Your task to perform on an android device: turn on data saver in the chrome app Image 0: 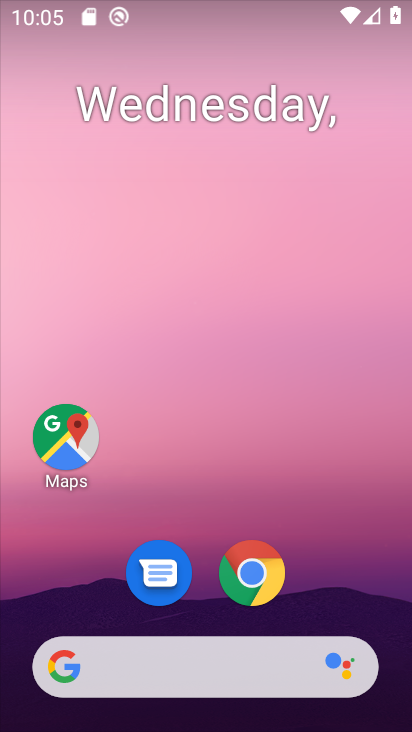
Step 0: drag from (191, 650) to (214, 1)
Your task to perform on an android device: turn on data saver in the chrome app Image 1: 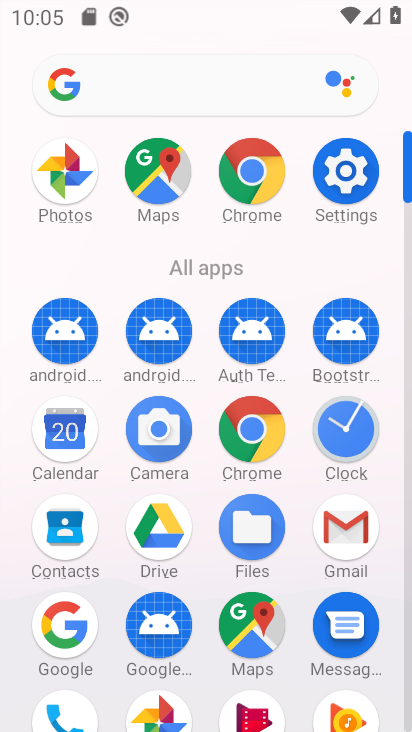
Step 1: click (280, 436)
Your task to perform on an android device: turn on data saver in the chrome app Image 2: 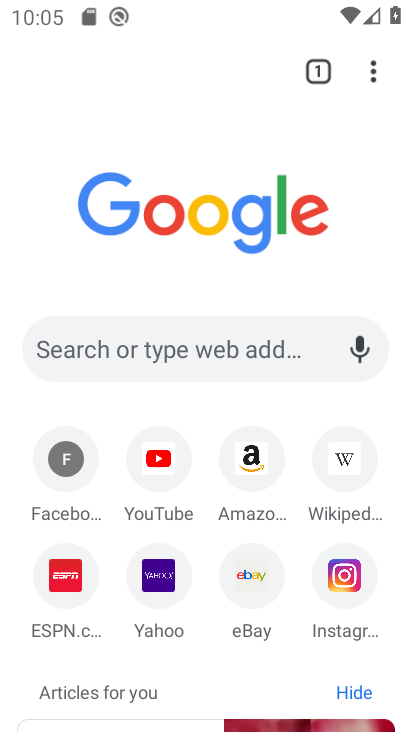
Step 2: click (368, 65)
Your task to perform on an android device: turn on data saver in the chrome app Image 3: 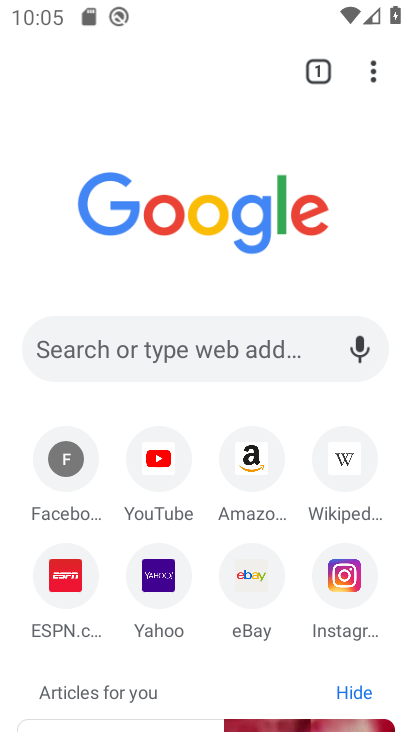
Step 3: click (368, 65)
Your task to perform on an android device: turn on data saver in the chrome app Image 4: 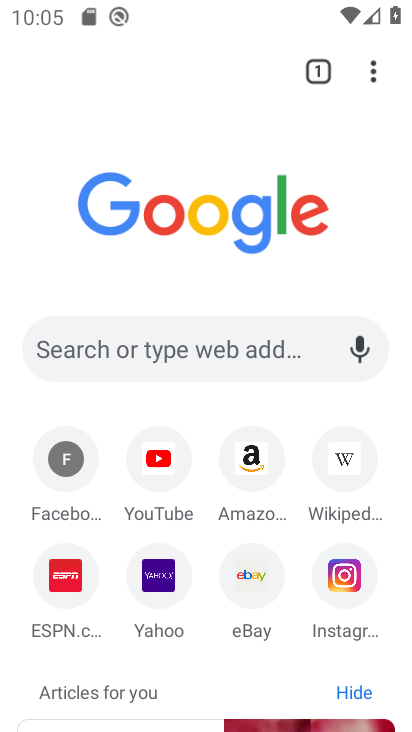
Step 4: click (368, 65)
Your task to perform on an android device: turn on data saver in the chrome app Image 5: 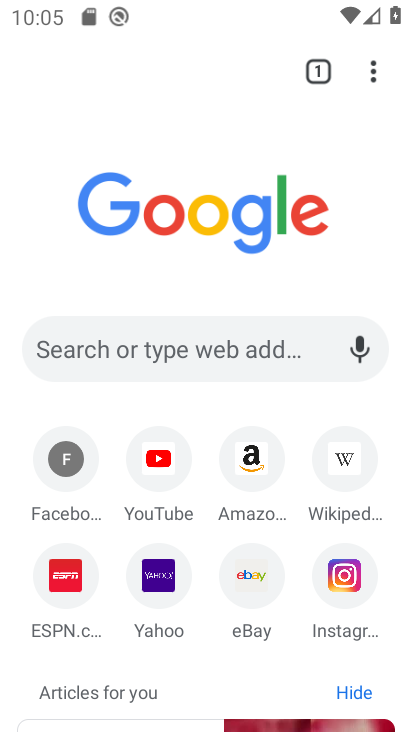
Step 5: click (367, 63)
Your task to perform on an android device: turn on data saver in the chrome app Image 6: 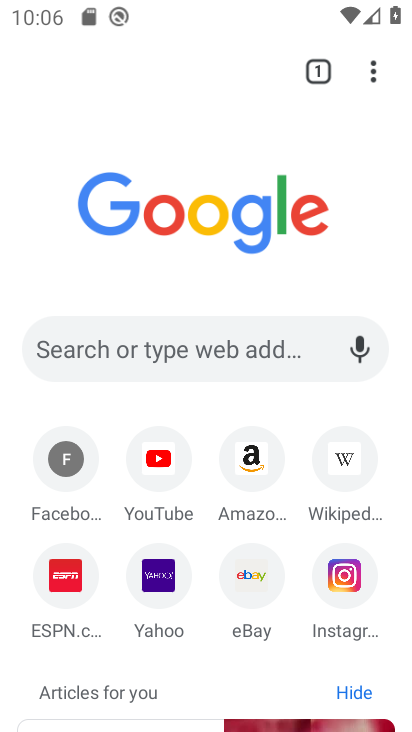
Step 6: drag from (360, 60) to (213, 596)
Your task to perform on an android device: turn on data saver in the chrome app Image 7: 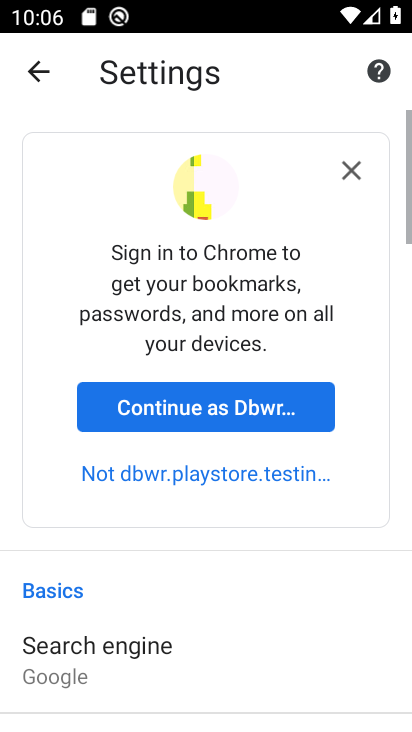
Step 7: drag from (178, 582) to (240, 44)
Your task to perform on an android device: turn on data saver in the chrome app Image 8: 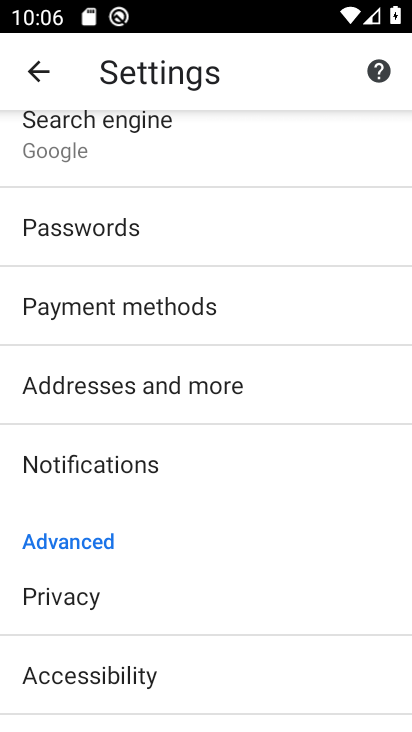
Step 8: drag from (181, 577) to (227, 178)
Your task to perform on an android device: turn on data saver in the chrome app Image 9: 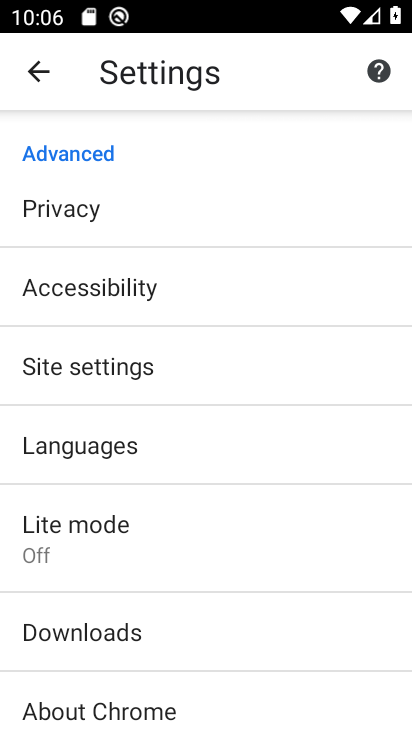
Step 9: click (90, 535)
Your task to perform on an android device: turn on data saver in the chrome app Image 10: 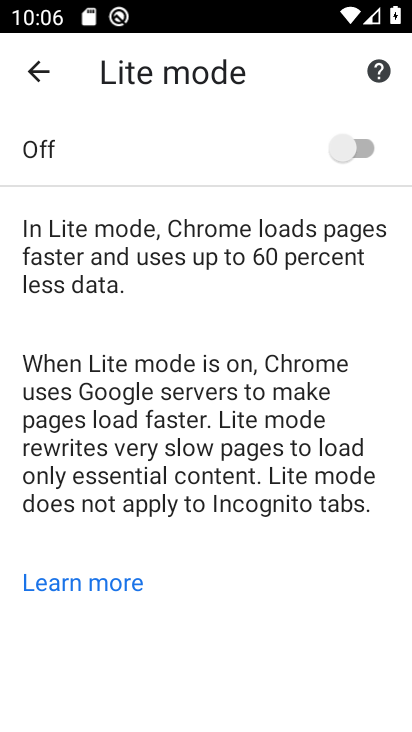
Step 10: click (357, 146)
Your task to perform on an android device: turn on data saver in the chrome app Image 11: 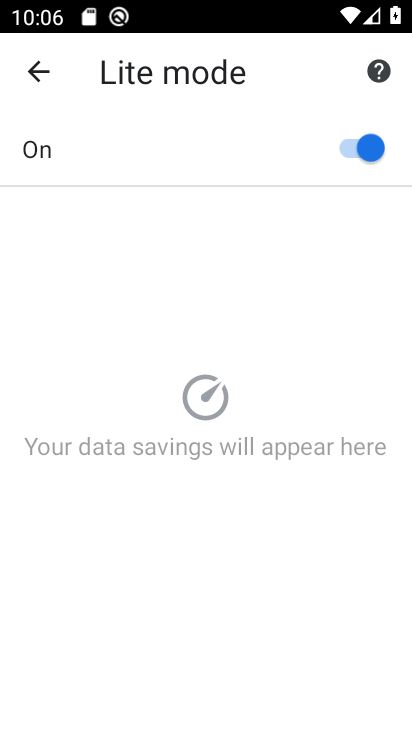
Step 11: task complete